Your task to perform on an android device: Open the calendar and show me this week's events? Image 0: 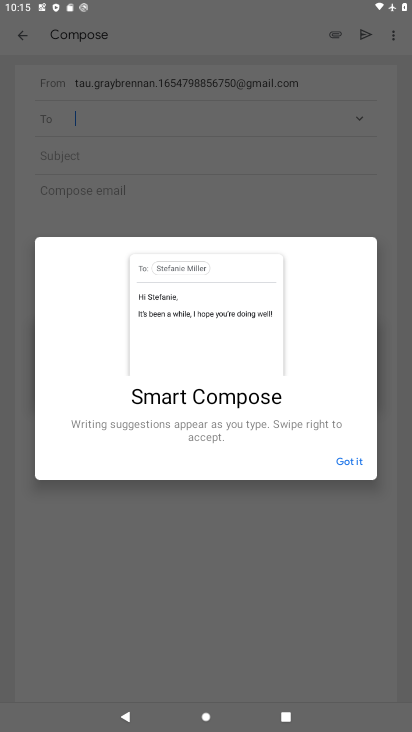
Step 0: task complete